Your task to perform on an android device: Open Google Chrome and click the shortcut for Amazon.com Image 0: 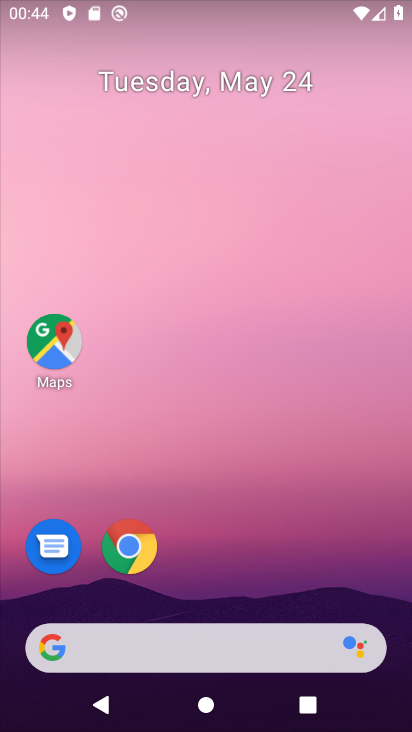
Step 0: drag from (322, 599) to (297, 71)
Your task to perform on an android device: Open Google Chrome and click the shortcut for Amazon.com Image 1: 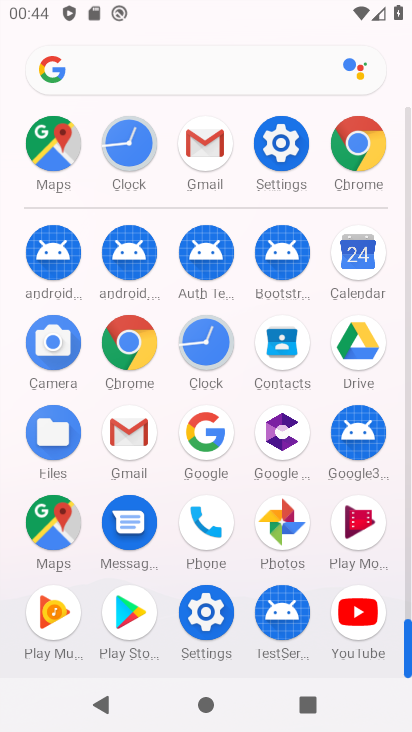
Step 1: click (136, 350)
Your task to perform on an android device: Open Google Chrome and click the shortcut for Amazon.com Image 2: 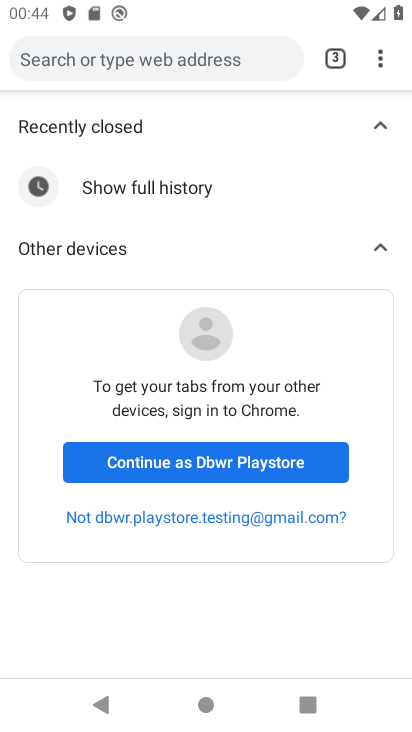
Step 2: drag from (379, 56) to (268, 107)
Your task to perform on an android device: Open Google Chrome and click the shortcut for Amazon.com Image 3: 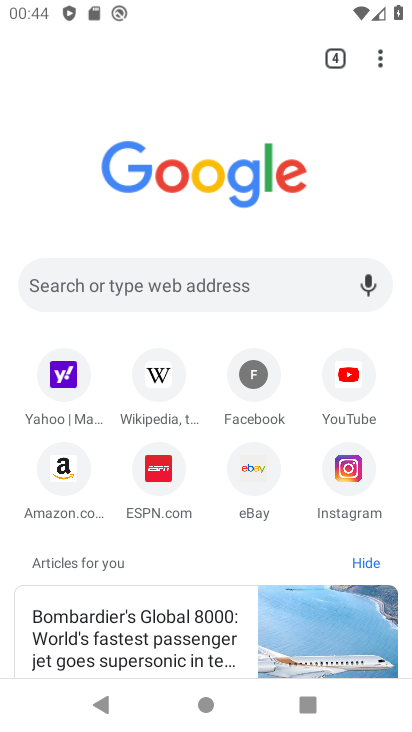
Step 3: click (67, 489)
Your task to perform on an android device: Open Google Chrome and click the shortcut for Amazon.com Image 4: 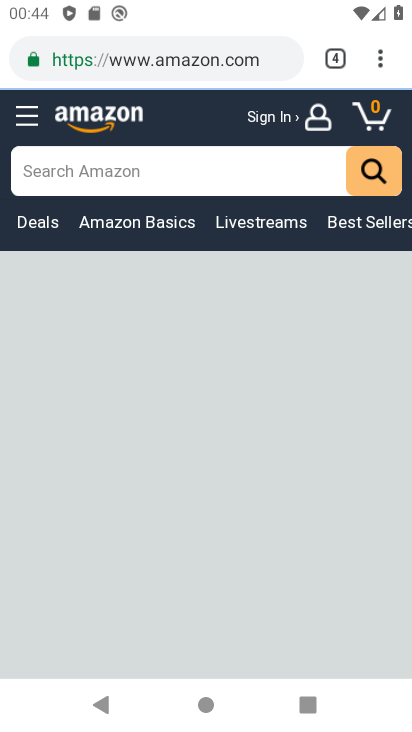
Step 4: click (375, 55)
Your task to perform on an android device: Open Google Chrome and click the shortcut for Amazon.com Image 5: 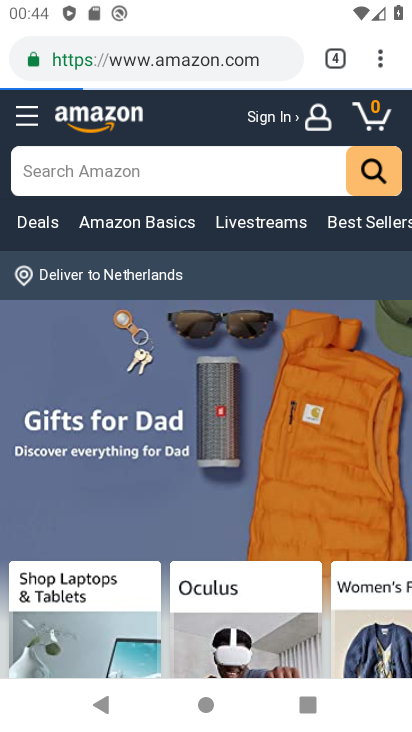
Step 5: drag from (383, 49) to (195, 585)
Your task to perform on an android device: Open Google Chrome and click the shortcut for Amazon.com Image 6: 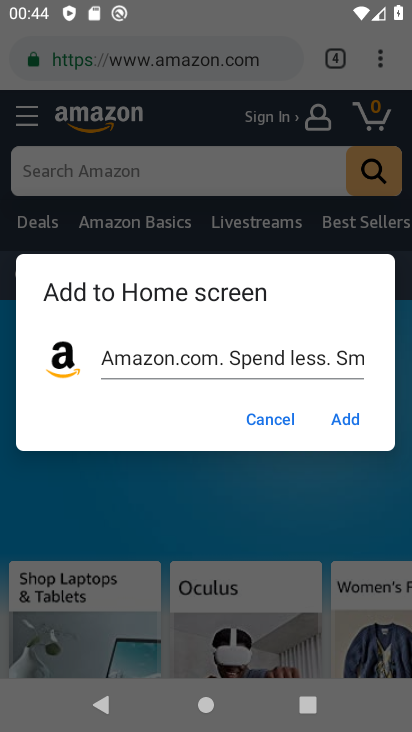
Step 6: click (356, 418)
Your task to perform on an android device: Open Google Chrome and click the shortcut for Amazon.com Image 7: 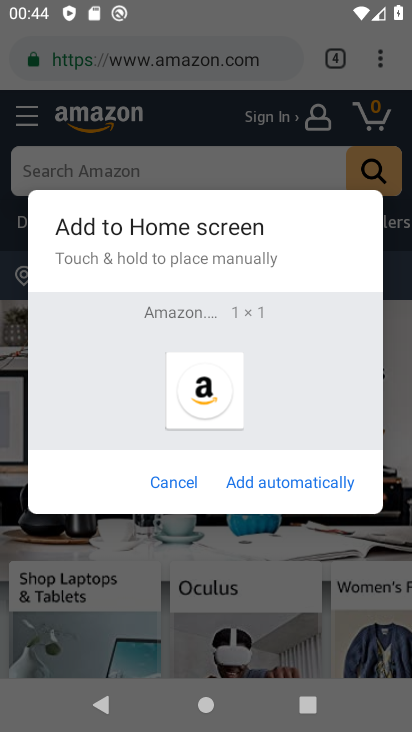
Step 7: click (267, 483)
Your task to perform on an android device: Open Google Chrome and click the shortcut for Amazon.com Image 8: 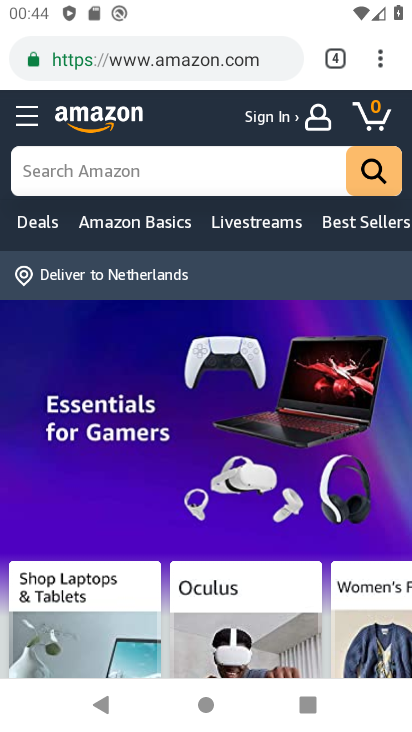
Step 8: task complete